Your task to perform on an android device: Is it going to rain tomorrow? Image 0: 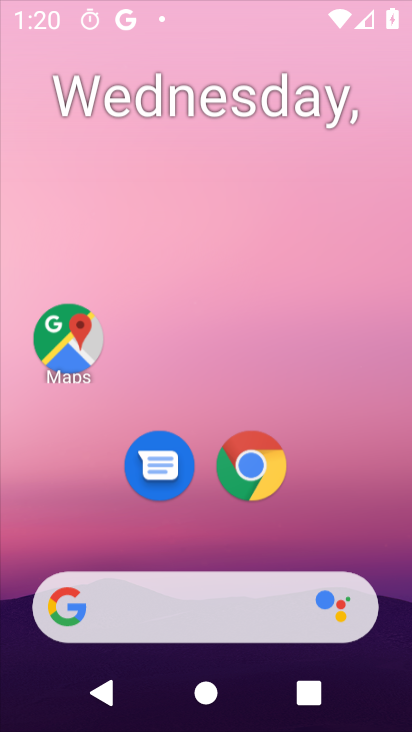
Step 0: drag from (332, 433) to (303, 162)
Your task to perform on an android device: Is it going to rain tomorrow? Image 1: 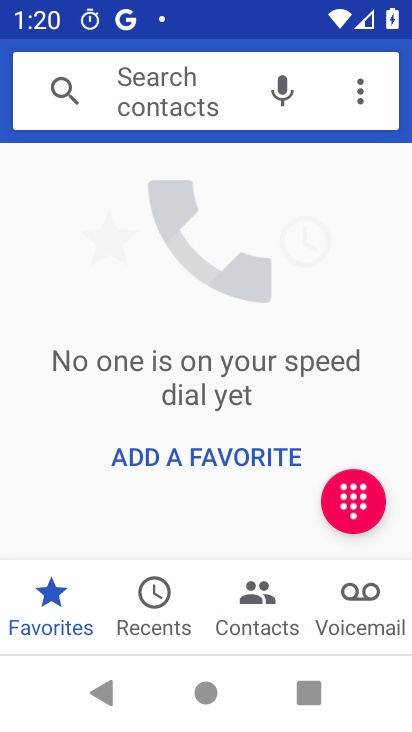
Step 1: press home button
Your task to perform on an android device: Is it going to rain tomorrow? Image 2: 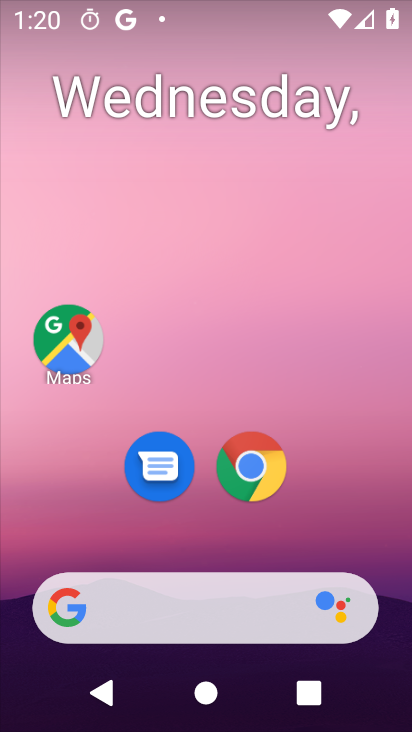
Step 2: click (226, 583)
Your task to perform on an android device: Is it going to rain tomorrow? Image 3: 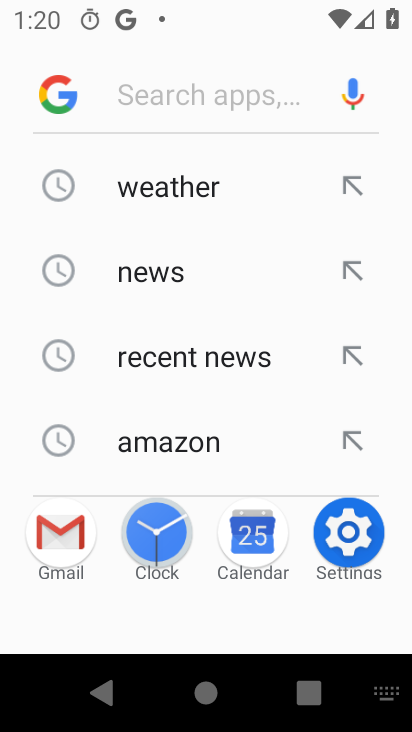
Step 3: click (133, 199)
Your task to perform on an android device: Is it going to rain tomorrow? Image 4: 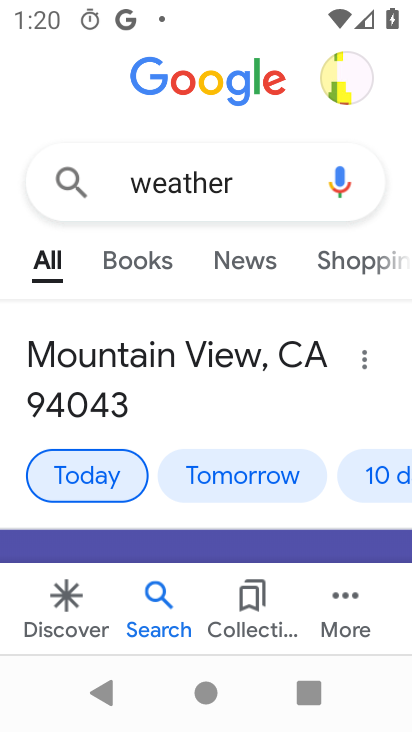
Step 4: click (246, 473)
Your task to perform on an android device: Is it going to rain tomorrow? Image 5: 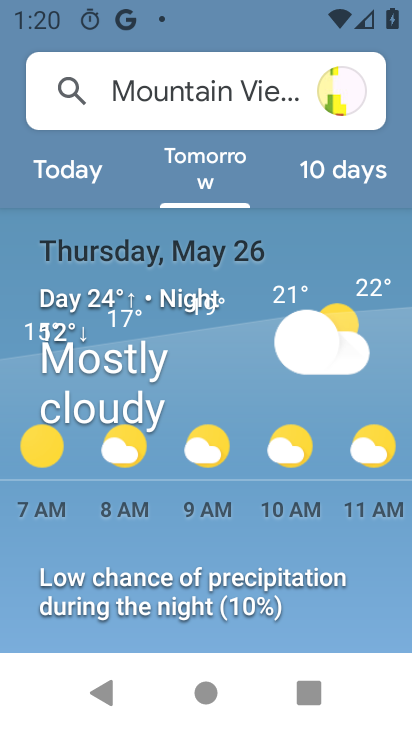
Step 5: drag from (360, 474) to (39, 420)
Your task to perform on an android device: Is it going to rain tomorrow? Image 6: 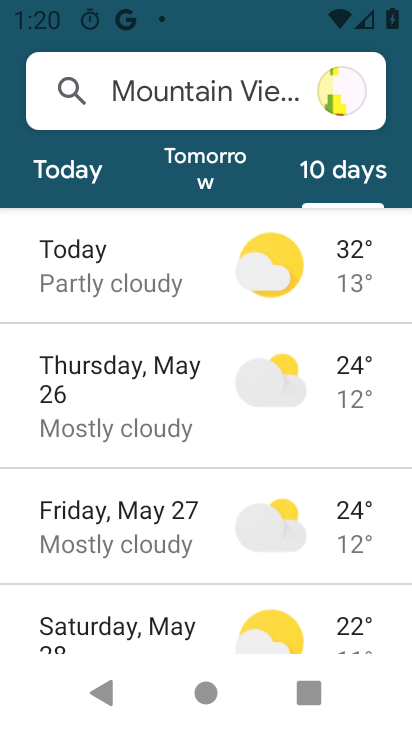
Step 6: drag from (79, 323) to (391, 310)
Your task to perform on an android device: Is it going to rain tomorrow? Image 7: 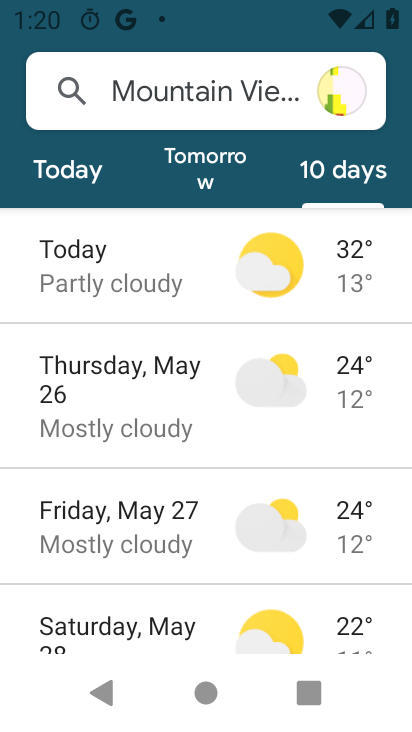
Step 7: drag from (2, 377) to (380, 385)
Your task to perform on an android device: Is it going to rain tomorrow? Image 8: 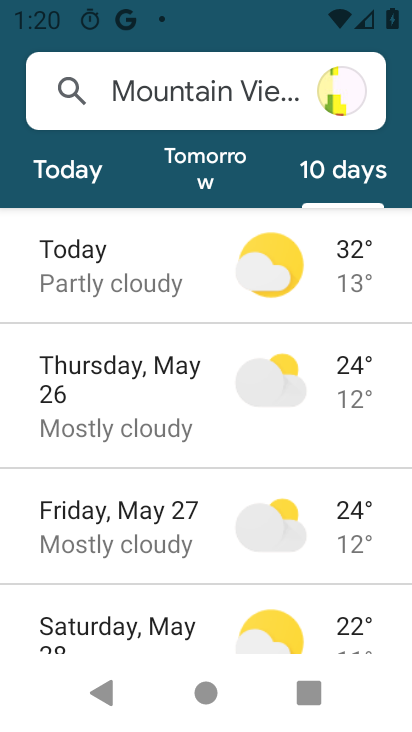
Step 8: click (217, 159)
Your task to perform on an android device: Is it going to rain tomorrow? Image 9: 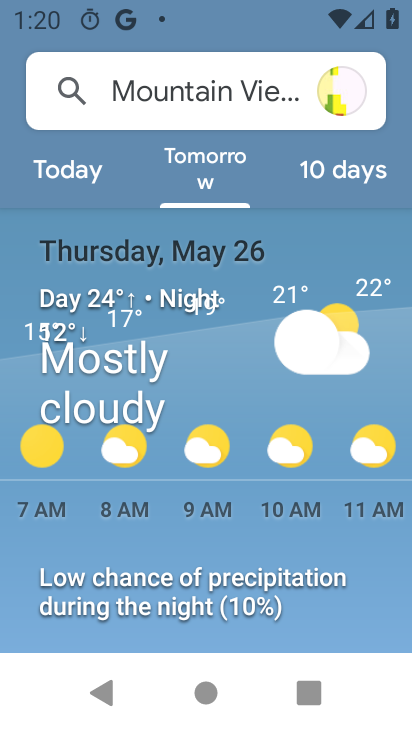
Step 9: task complete